Your task to perform on an android device: Go to network settings Image 0: 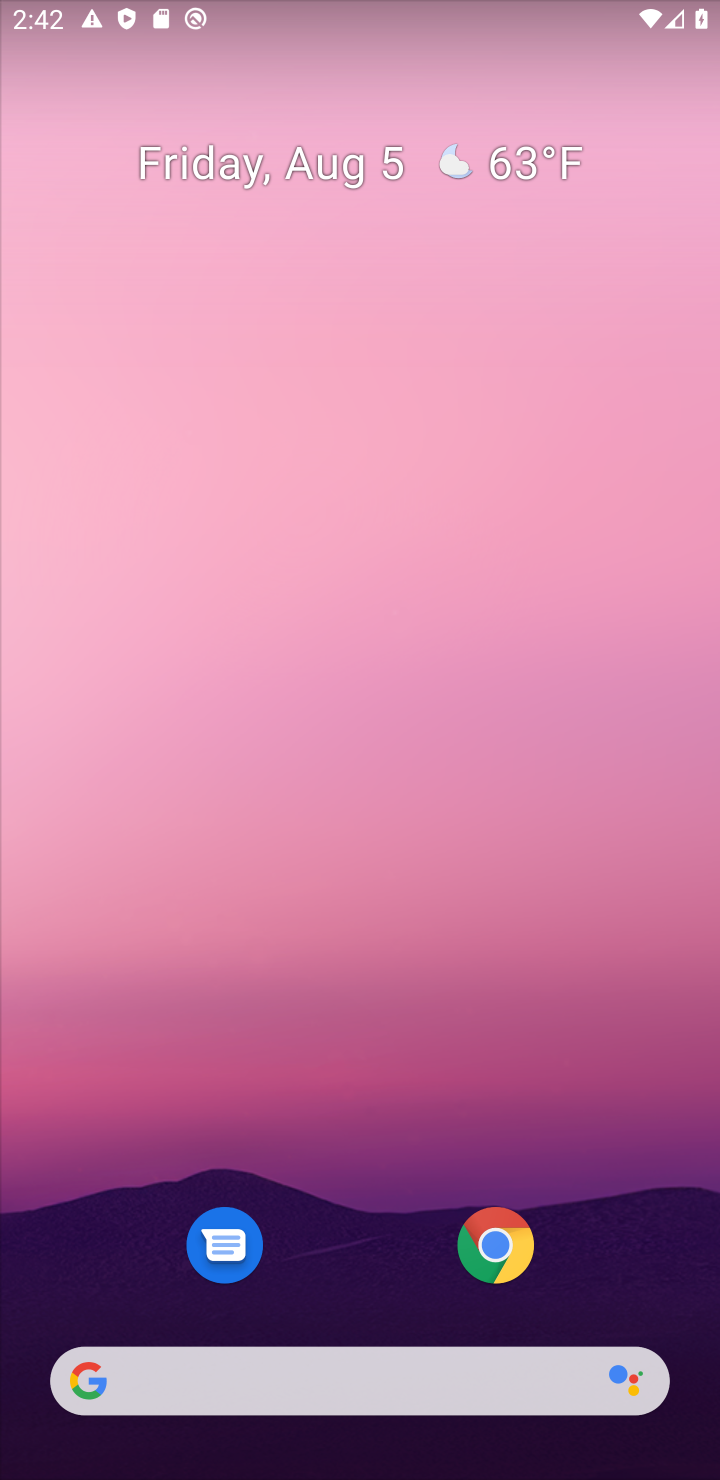
Step 0: drag from (353, 1341) to (341, 434)
Your task to perform on an android device: Go to network settings Image 1: 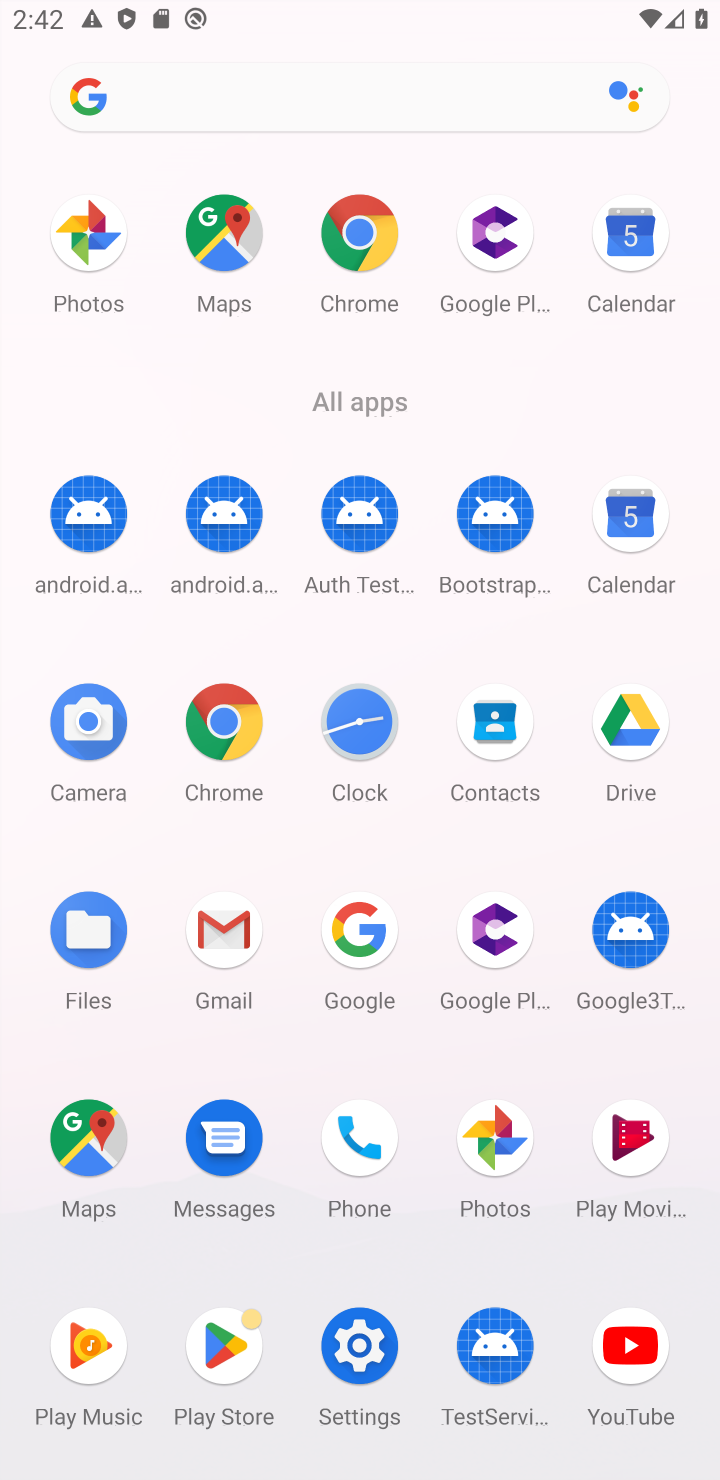
Step 1: click (337, 1315)
Your task to perform on an android device: Go to network settings Image 2: 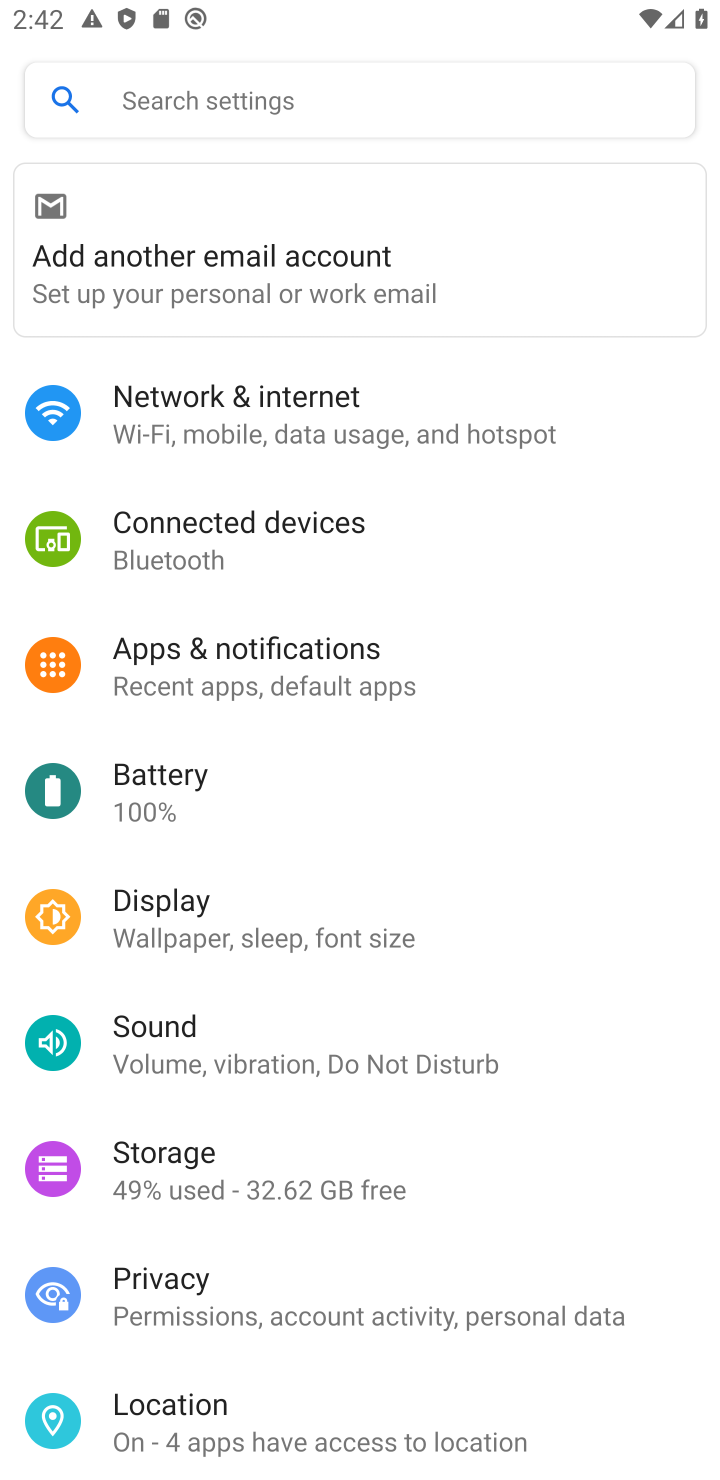
Step 2: click (169, 400)
Your task to perform on an android device: Go to network settings Image 3: 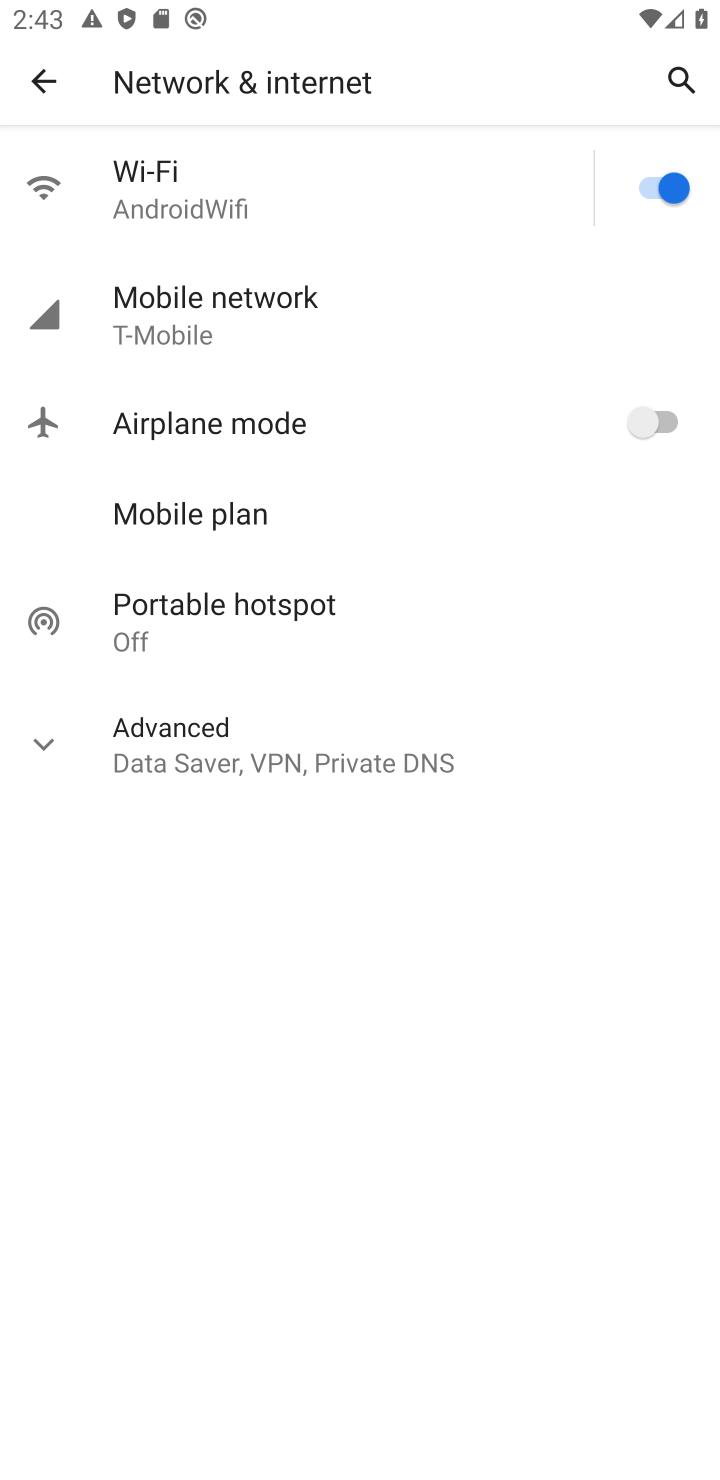
Step 3: task complete